Your task to perform on an android device: Open Chrome and go to settings Image 0: 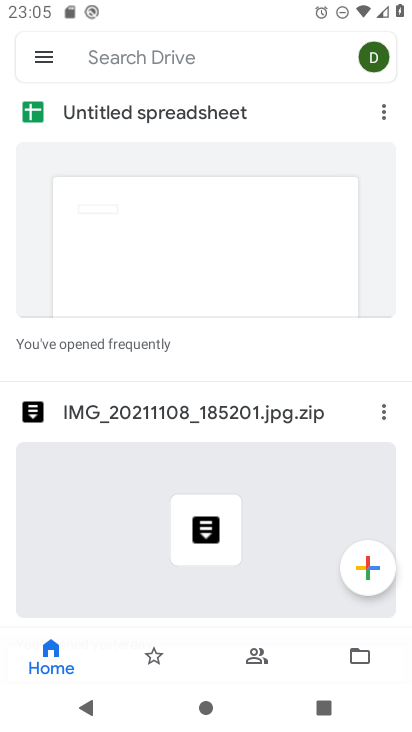
Step 0: press home button
Your task to perform on an android device: Open Chrome and go to settings Image 1: 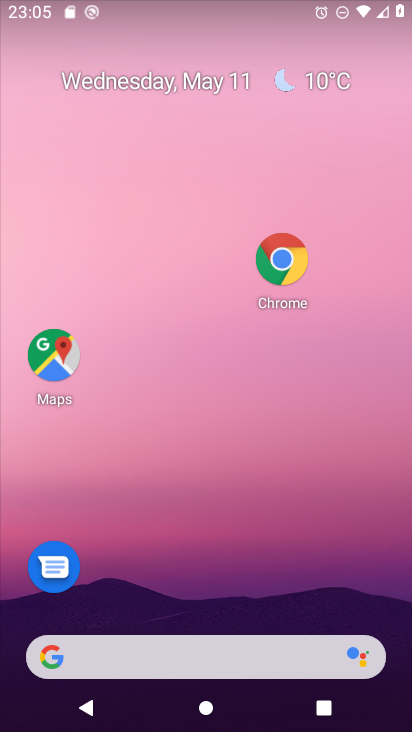
Step 1: click (278, 271)
Your task to perform on an android device: Open Chrome and go to settings Image 2: 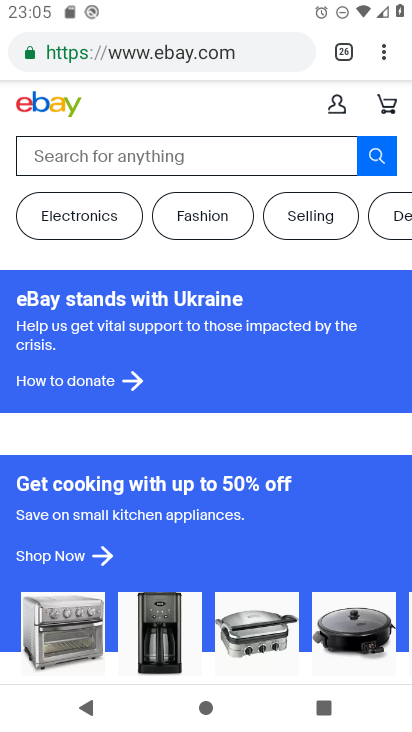
Step 2: task complete